Your task to perform on an android device: Search for Italian restaurants on Maps Image 0: 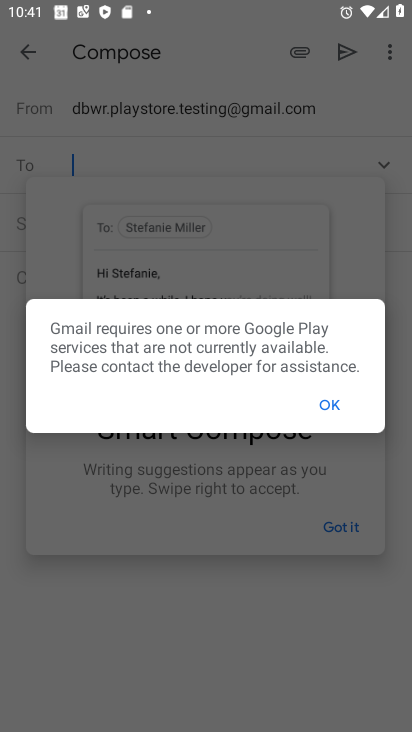
Step 0: press home button
Your task to perform on an android device: Search for Italian restaurants on Maps Image 1: 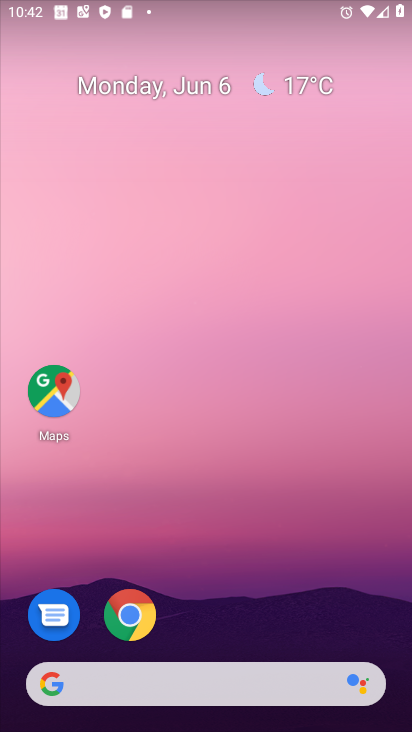
Step 1: click (53, 388)
Your task to perform on an android device: Search for Italian restaurants on Maps Image 2: 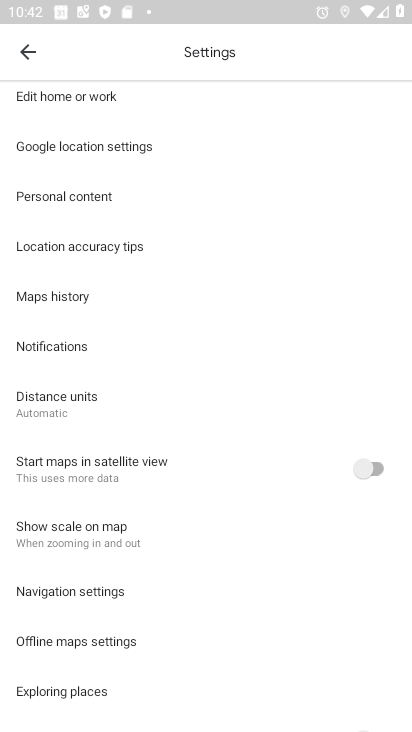
Step 2: click (31, 54)
Your task to perform on an android device: Search for Italian restaurants on Maps Image 3: 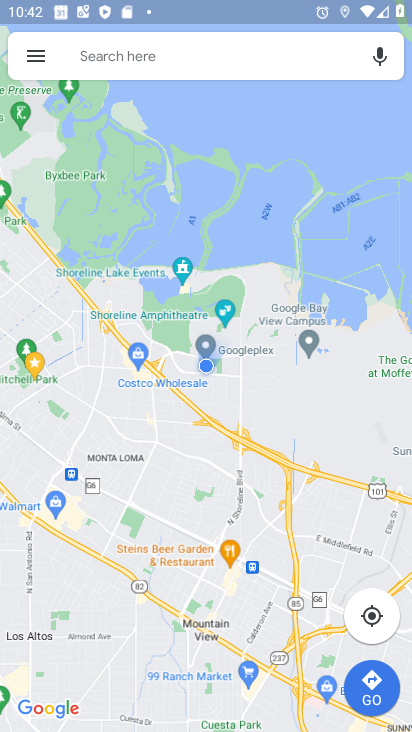
Step 3: click (113, 50)
Your task to perform on an android device: Search for Italian restaurants on Maps Image 4: 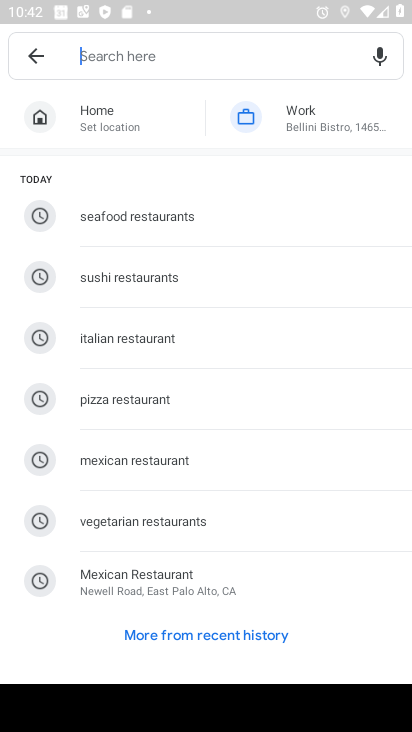
Step 4: click (116, 337)
Your task to perform on an android device: Search for Italian restaurants on Maps Image 5: 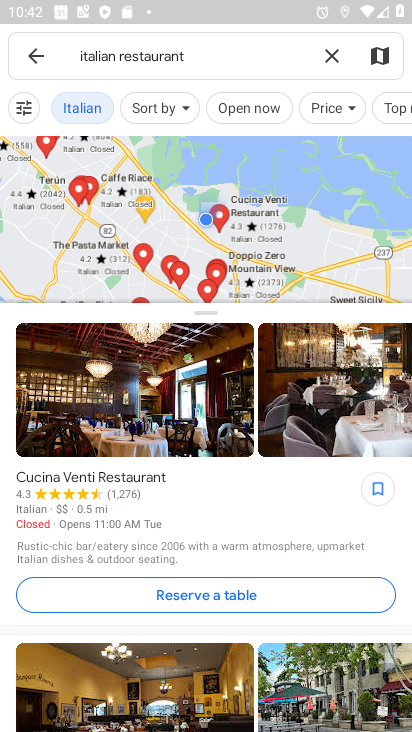
Step 5: task complete